Your task to perform on an android device: turn off data saver in the chrome app Image 0: 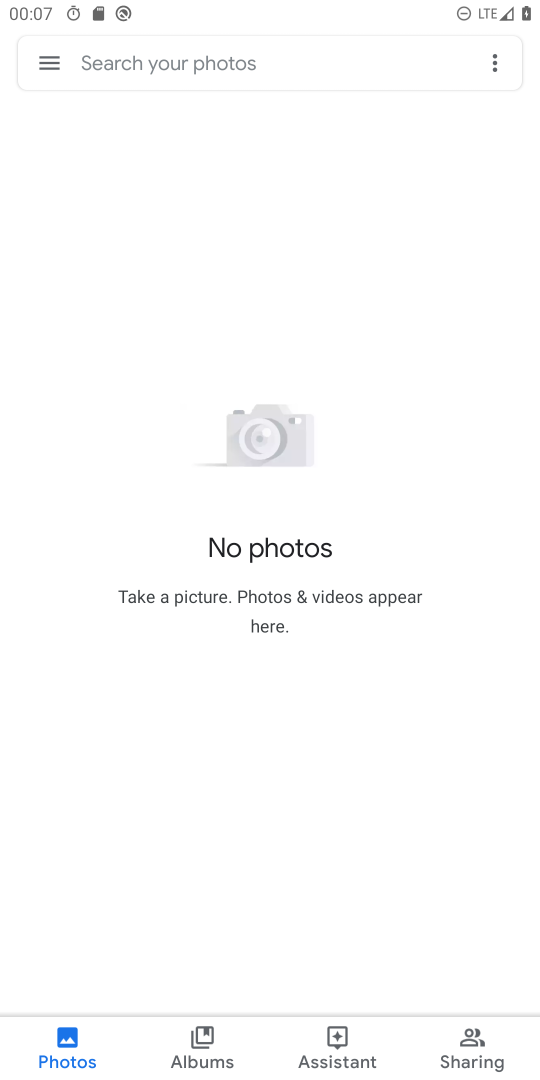
Step 0: press home button
Your task to perform on an android device: turn off data saver in the chrome app Image 1: 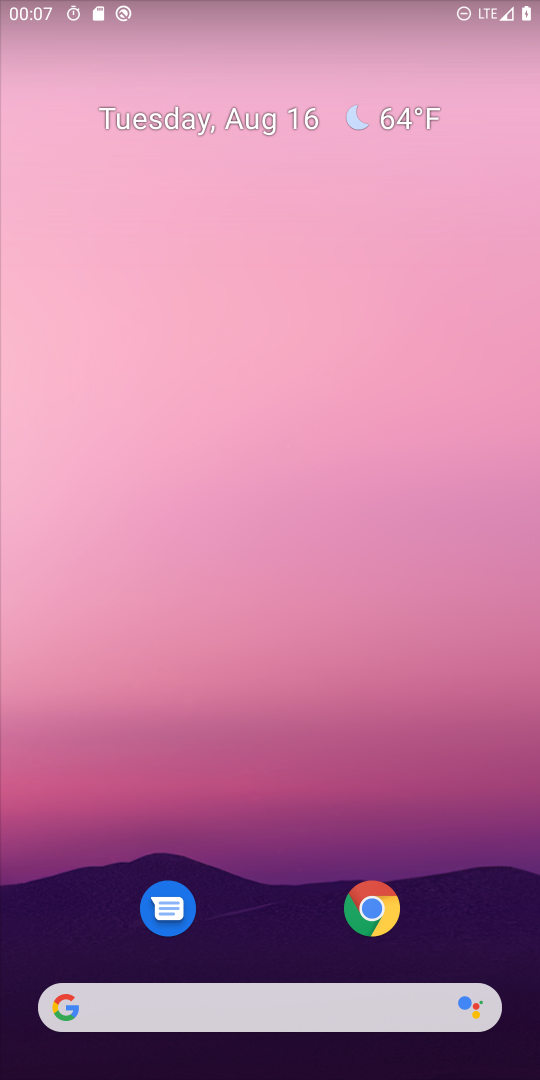
Step 1: click (361, 896)
Your task to perform on an android device: turn off data saver in the chrome app Image 2: 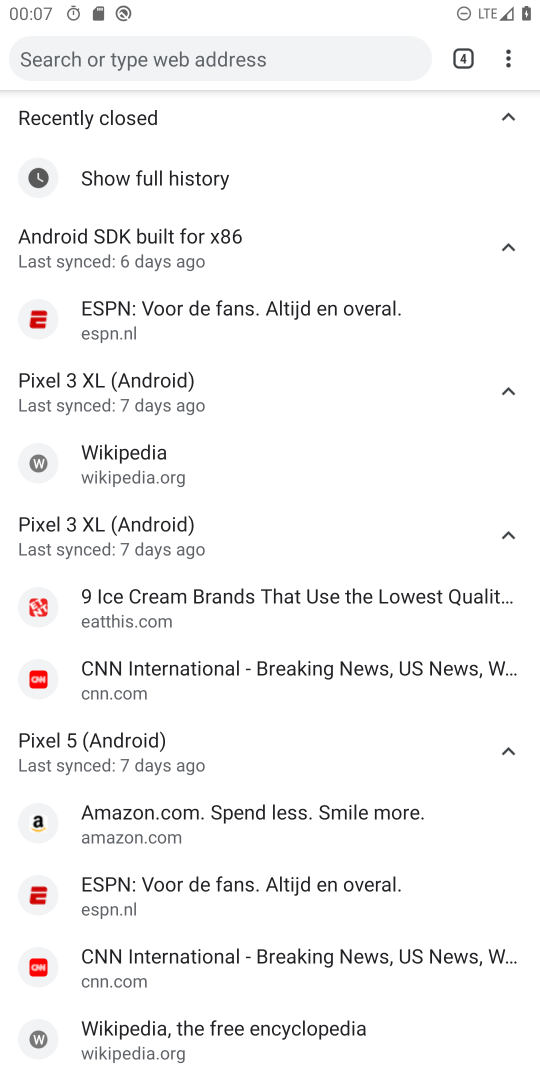
Step 2: click (521, 54)
Your task to perform on an android device: turn off data saver in the chrome app Image 3: 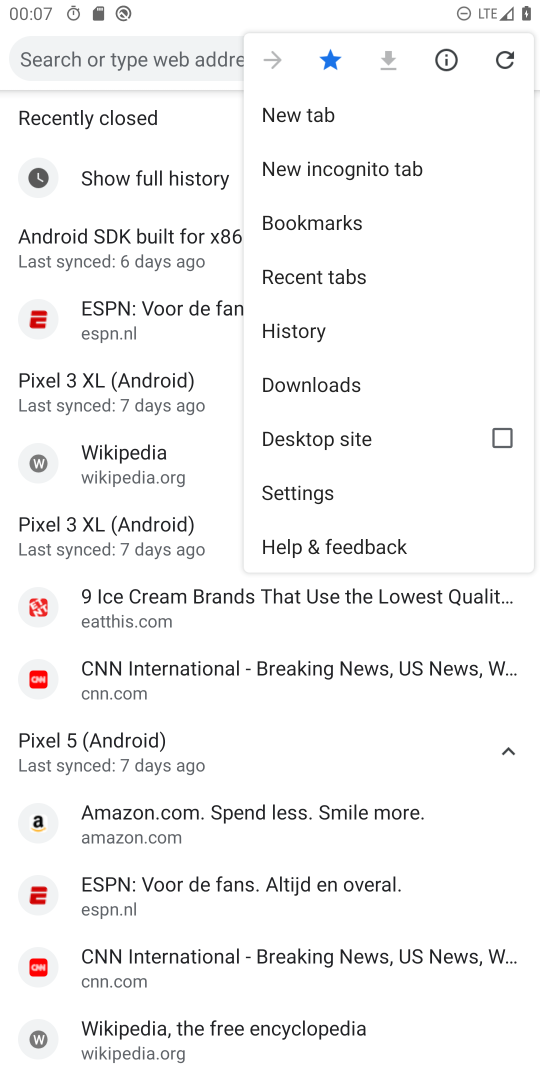
Step 3: click (309, 506)
Your task to perform on an android device: turn off data saver in the chrome app Image 4: 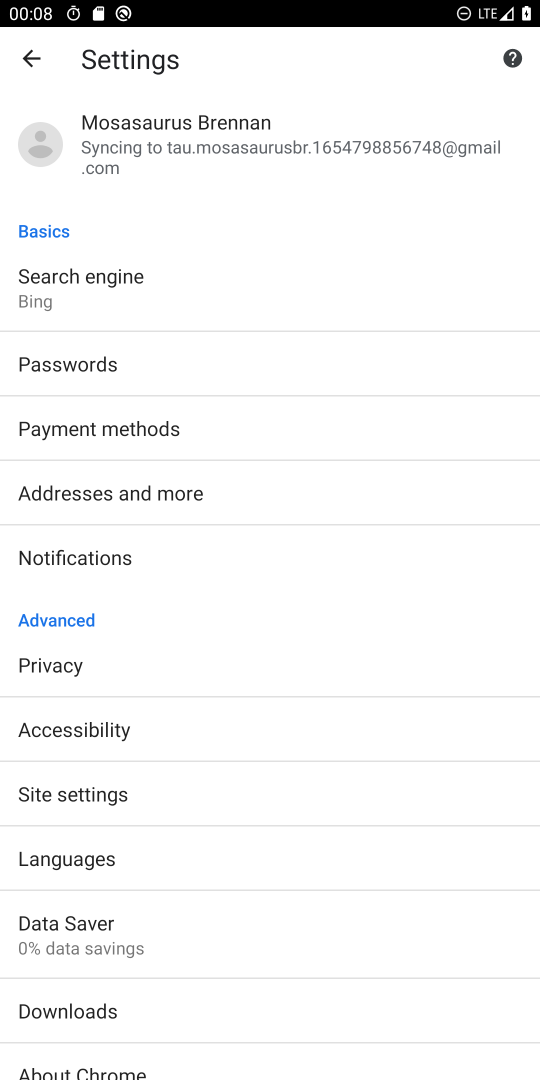
Step 4: click (132, 945)
Your task to perform on an android device: turn off data saver in the chrome app Image 5: 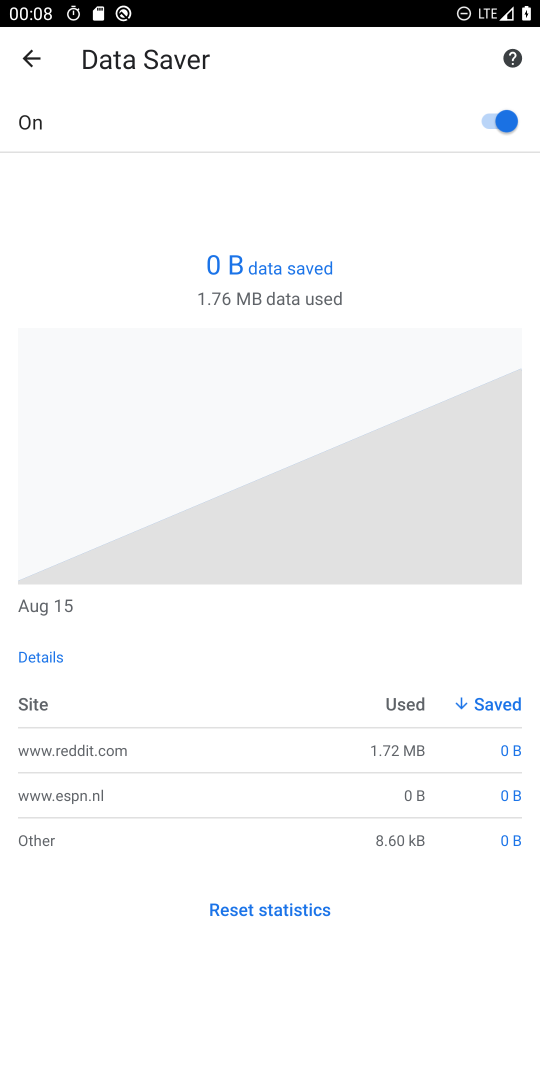
Step 5: click (492, 119)
Your task to perform on an android device: turn off data saver in the chrome app Image 6: 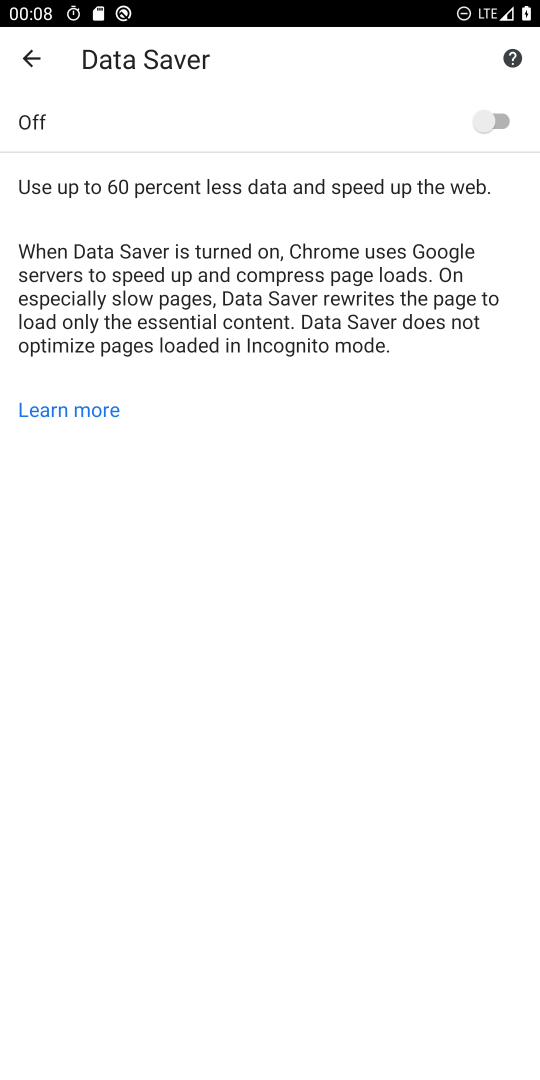
Step 6: task complete